Your task to perform on an android device: set default search engine in the chrome app Image 0: 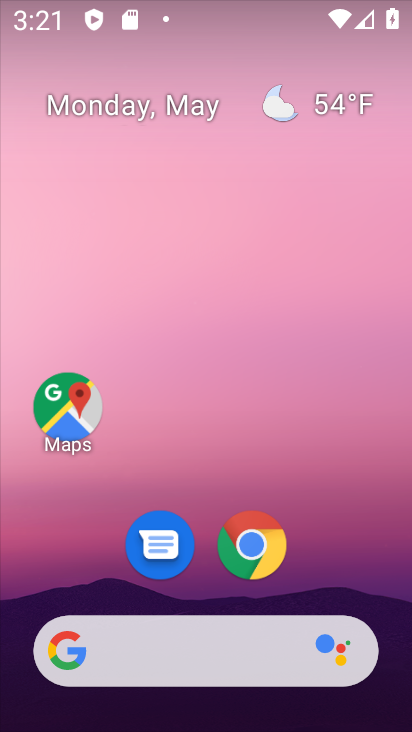
Step 0: click (248, 547)
Your task to perform on an android device: set default search engine in the chrome app Image 1: 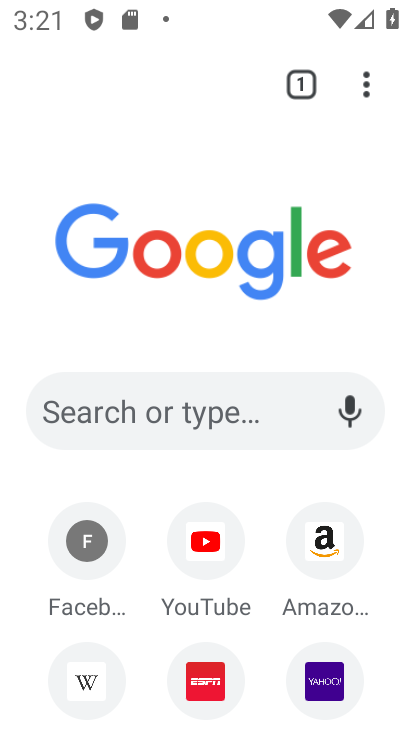
Step 1: click (372, 90)
Your task to perform on an android device: set default search engine in the chrome app Image 2: 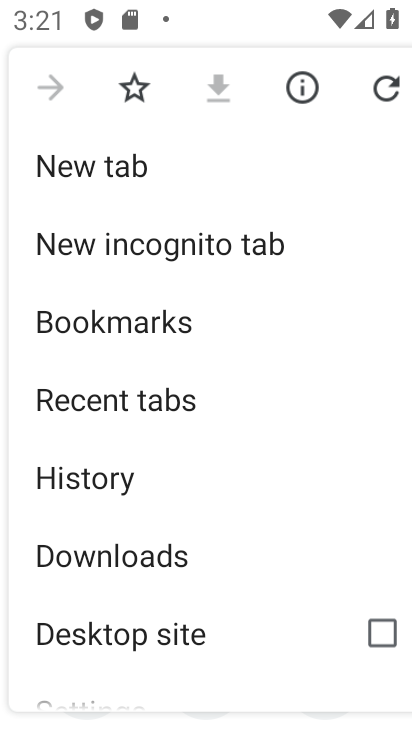
Step 2: drag from (231, 613) to (235, 181)
Your task to perform on an android device: set default search engine in the chrome app Image 3: 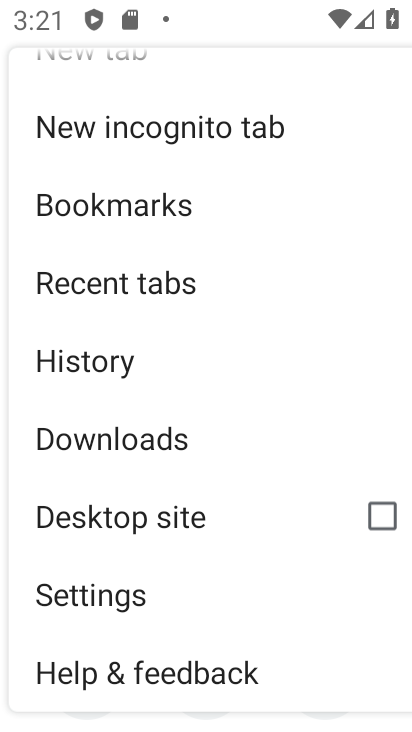
Step 3: click (107, 595)
Your task to perform on an android device: set default search engine in the chrome app Image 4: 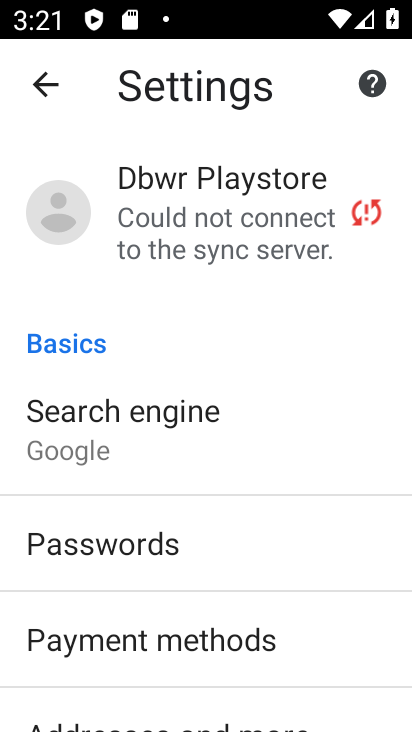
Step 4: click (71, 430)
Your task to perform on an android device: set default search engine in the chrome app Image 5: 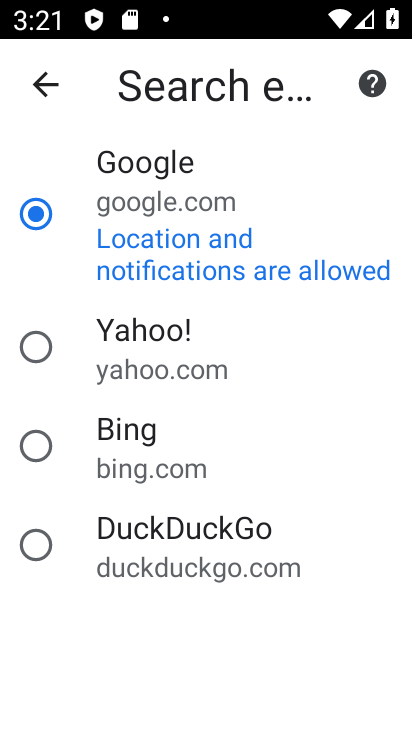
Step 5: click (43, 350)
Your task to perform on an android device: set default search engine in the chrome app Image 6: 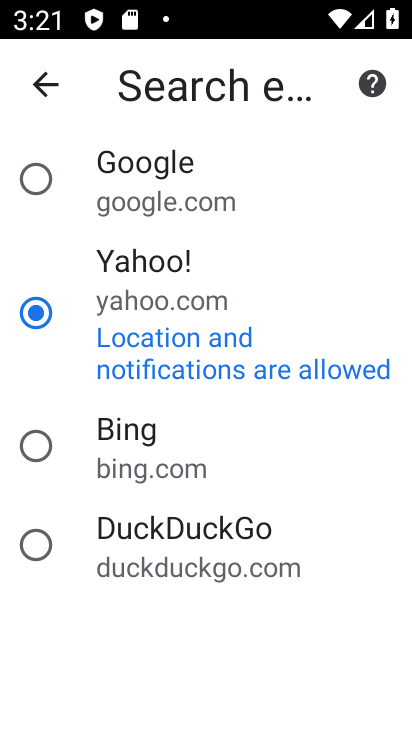
Step 6: task complete